Your task to perform on an android device: Go to calendar. Show me events next week Image 0: 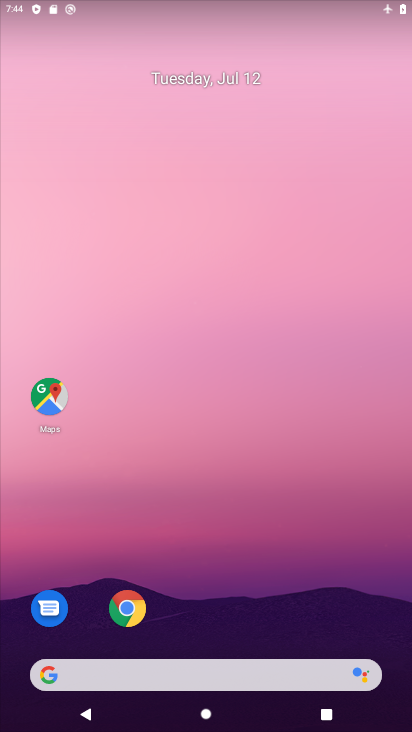
Step 0: drag from (211, 647) to (173, 47)
Your task to perform on an android device: Go to calendar. Show me events next week Image 1: 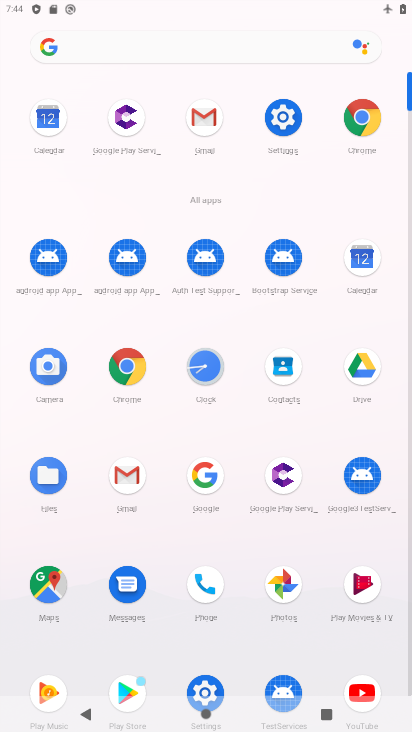
Step 1: click (366, 276)
Your task to perform on an android device: Go to calendar. Show me events next week Image 2: 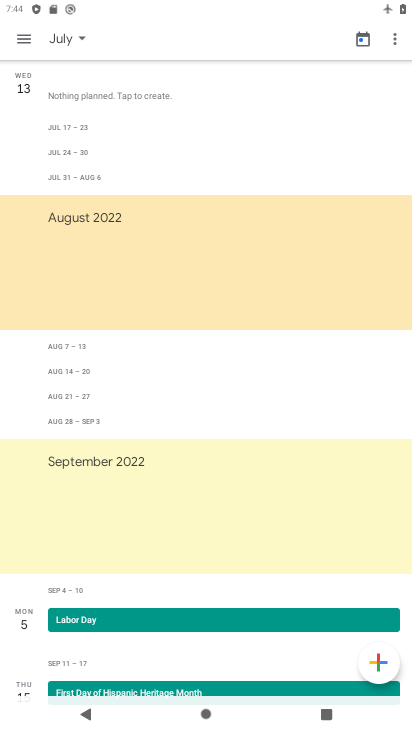
Step 2: click (24, 34)
Your task to perform on an android device: Go to calendar. Show me events next week Image 3: 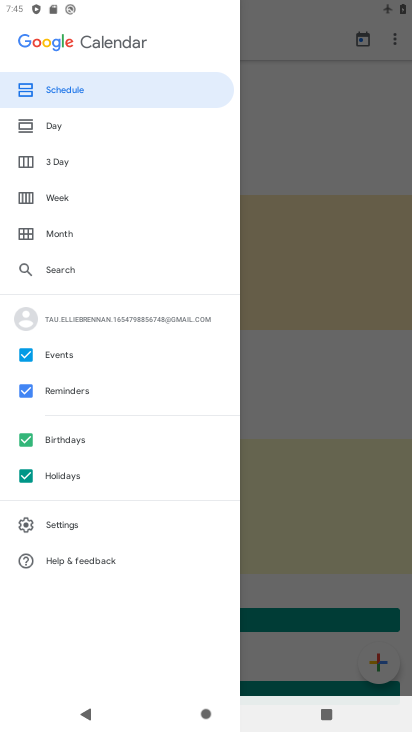
Step 3: click (58, 198)
Your task to perform on an android device: Go to calendar. Show me events next week Image 4: 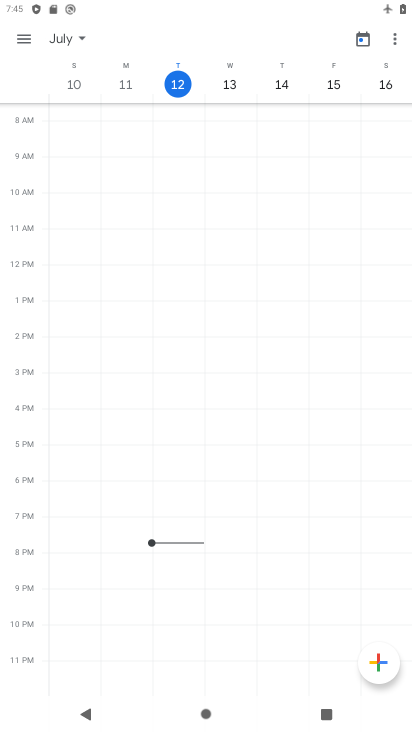
Step 4: task complete